Your task to perform on an android device: When is my next meeting? Image 0: 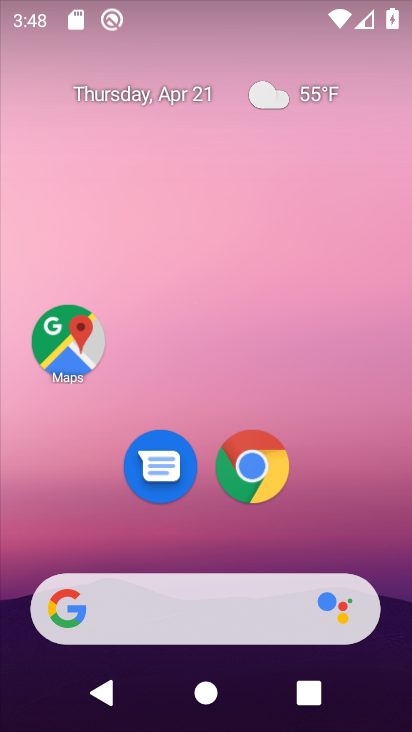
Step 0: drag from (269, 547) to (248, 46)
Your task to perform on an android device: When is my next meeting? Image 1: 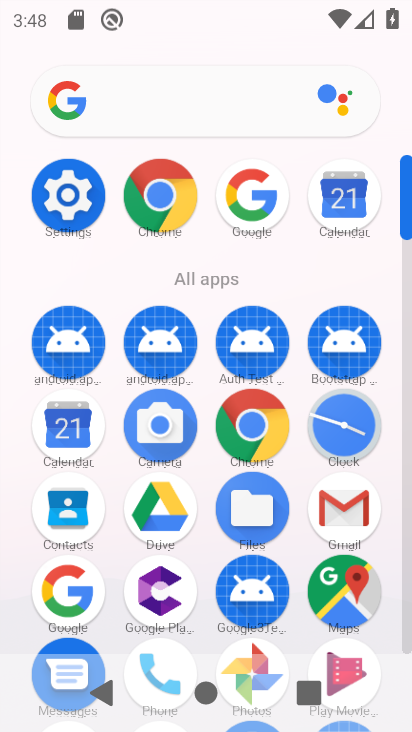
Step 1: click (67, 423)
Your task to perform on an android device: When is my next meeting? Image 2: 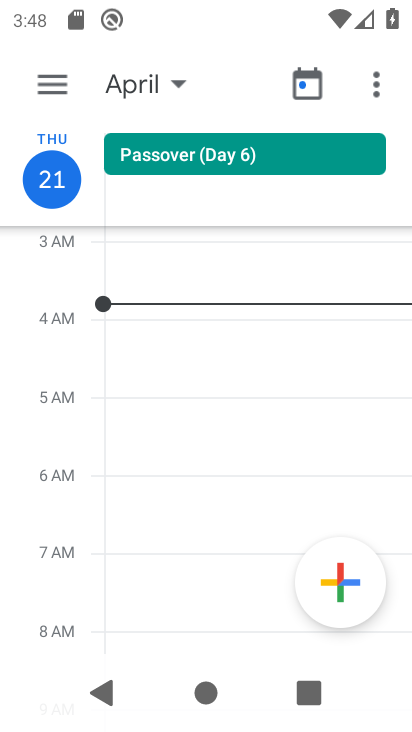
Step 2: click (51, 82)
Your task to perform on an android device: When is my next meeting? Image 3: 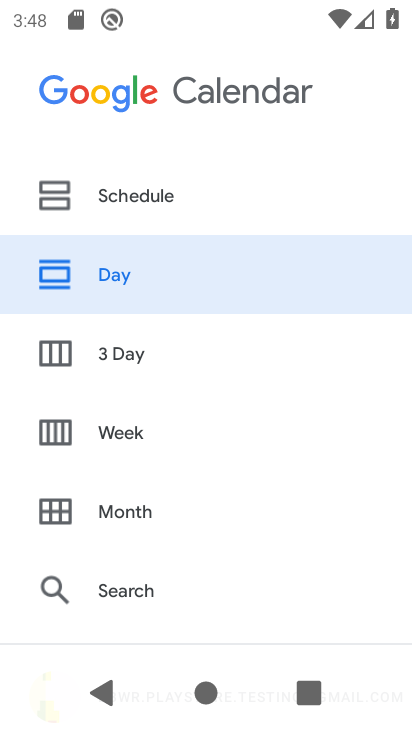
Step 3: click (137, 421)
Your task to perform on an android device: When is my next meeting? Image 4: 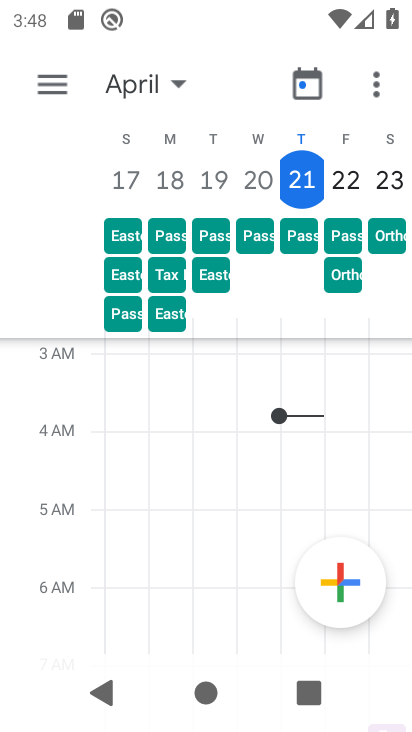
Step 4: click (348, 180)
Your task to perform on an android device: When is my next meeting? Image 5: 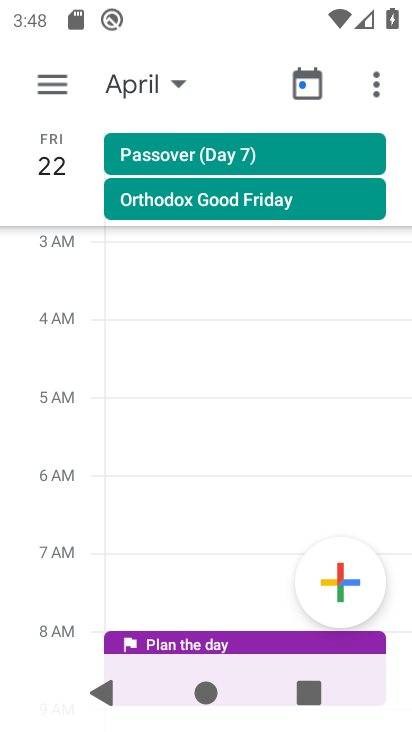
Step 5: task complete